Your task to perform on an android device: Check the weather Image 0: 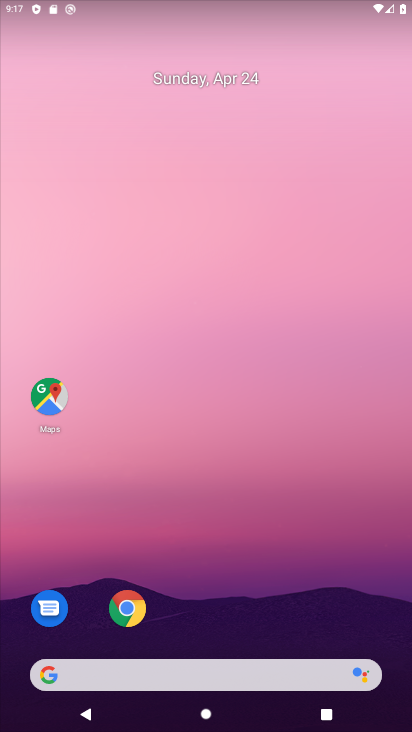
Step 0: press home button
Your task to perform on an android device: Check the weather Image 1: 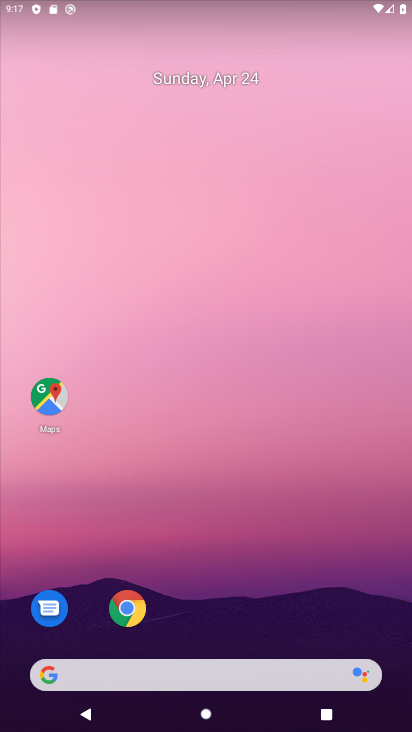
Step 1: drag from (271, 696) to (315, 202)
Your task to perform on an android device: Check the weather Image 2: 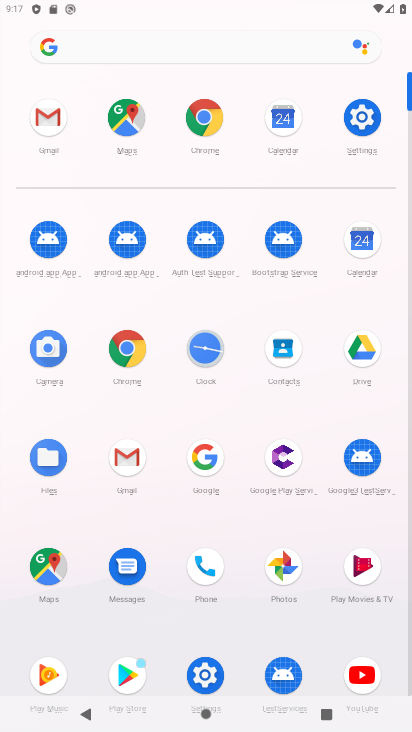
Step 2: click (149, 52)
Your task to perform on an android device: Check the weather Image 3: 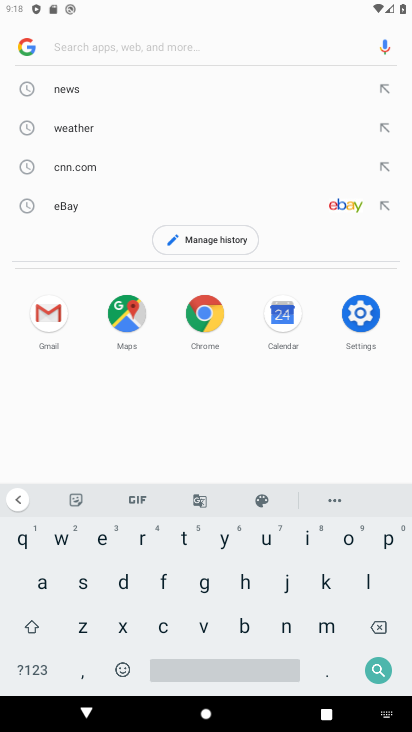
Step 3: click (101, 115)
Your task to perform on an android device: Check the weather Image 4: 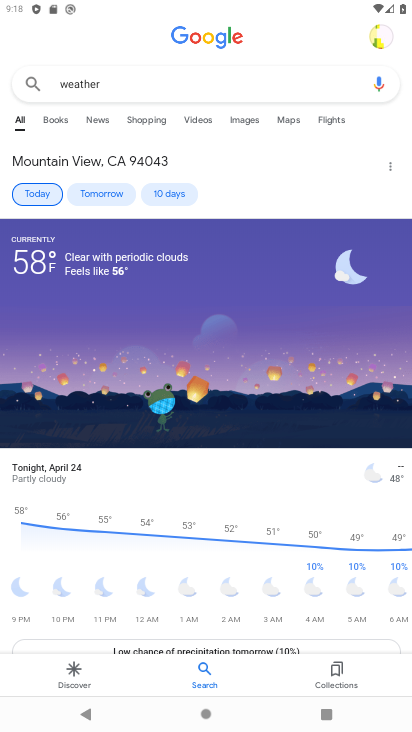
Step 4: task complete